Your task to perform on an android device: Open my contact list Image 0: 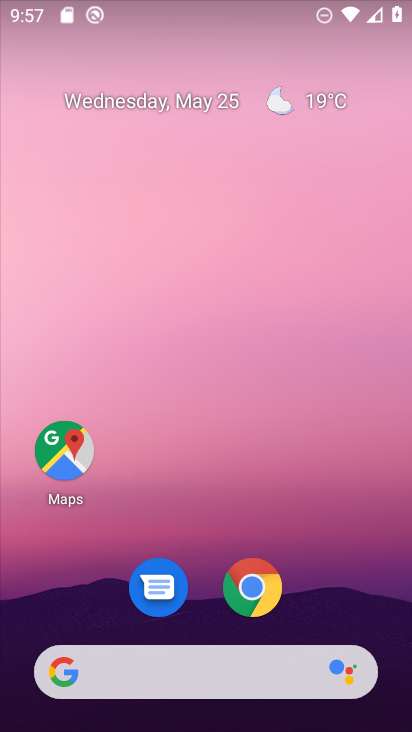
Step 0: drag from (383, 613) to (338, 215)
Your task to perform on an android device: Open my contact list Image 1: 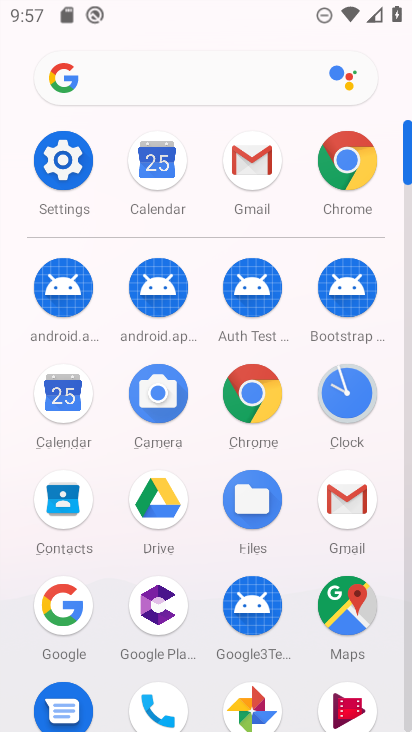
Step 1: click (61, 497)
Your task to perform on an android device: Open my contact list Image 2: 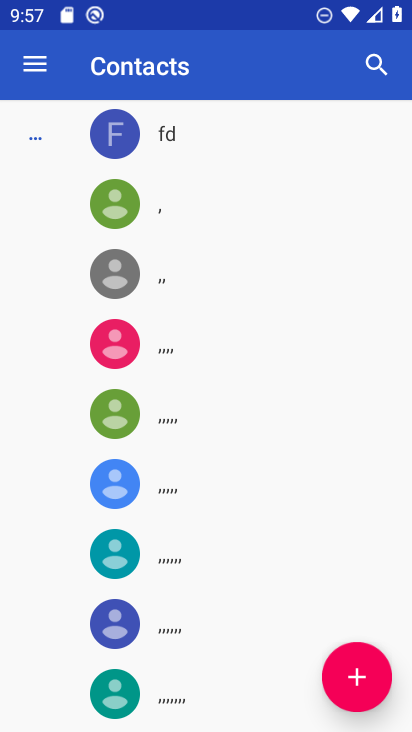
Step 2: task complete